Your task to perform on an android device: Clear all items from cart on bestbuy.com. Add "usb-c to usb-b" to the cart on bestbuy.com, then select checkout. Image 0: 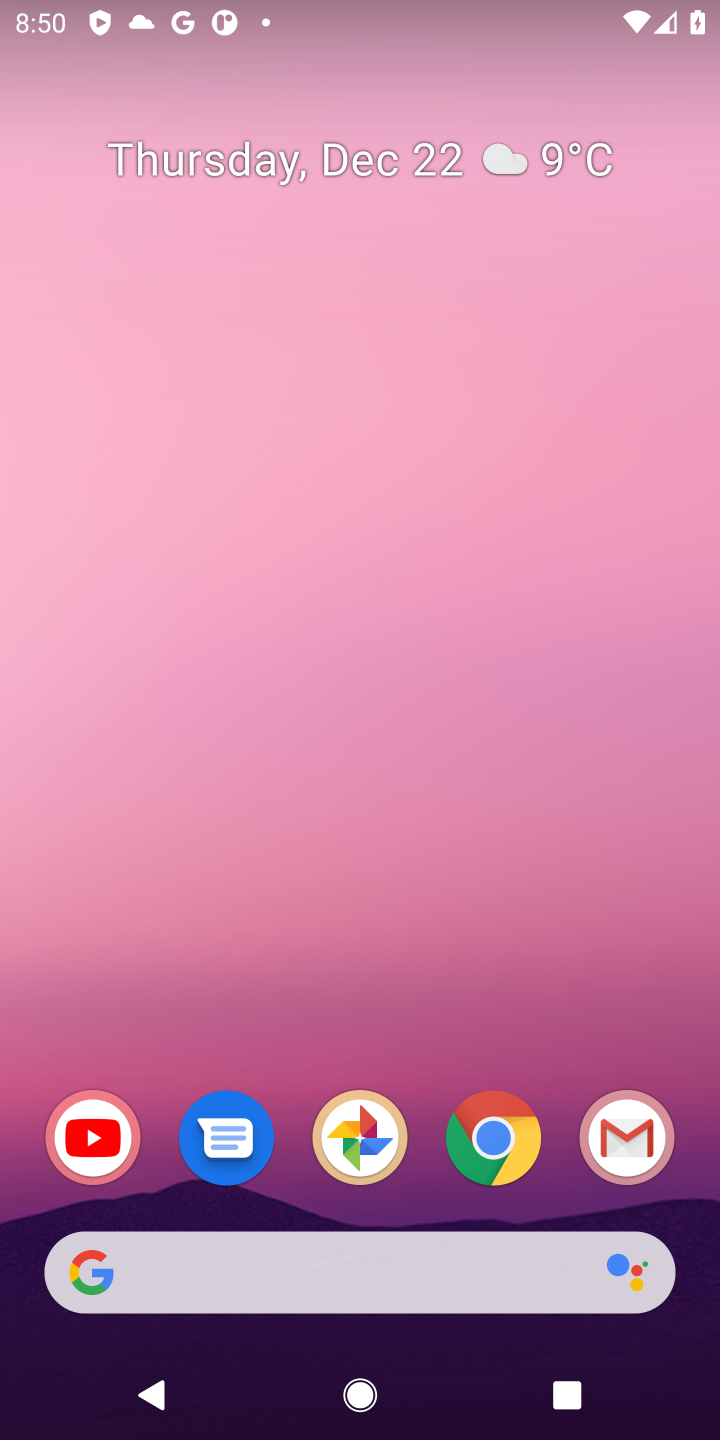
Step 0: click (504, 1163)
Your task to perform on an android device: Clear all items from cart on bestbuy.com. Add "usb-c to usb-b" to the cart on bestbuy.com, then select checkout. Image 1: 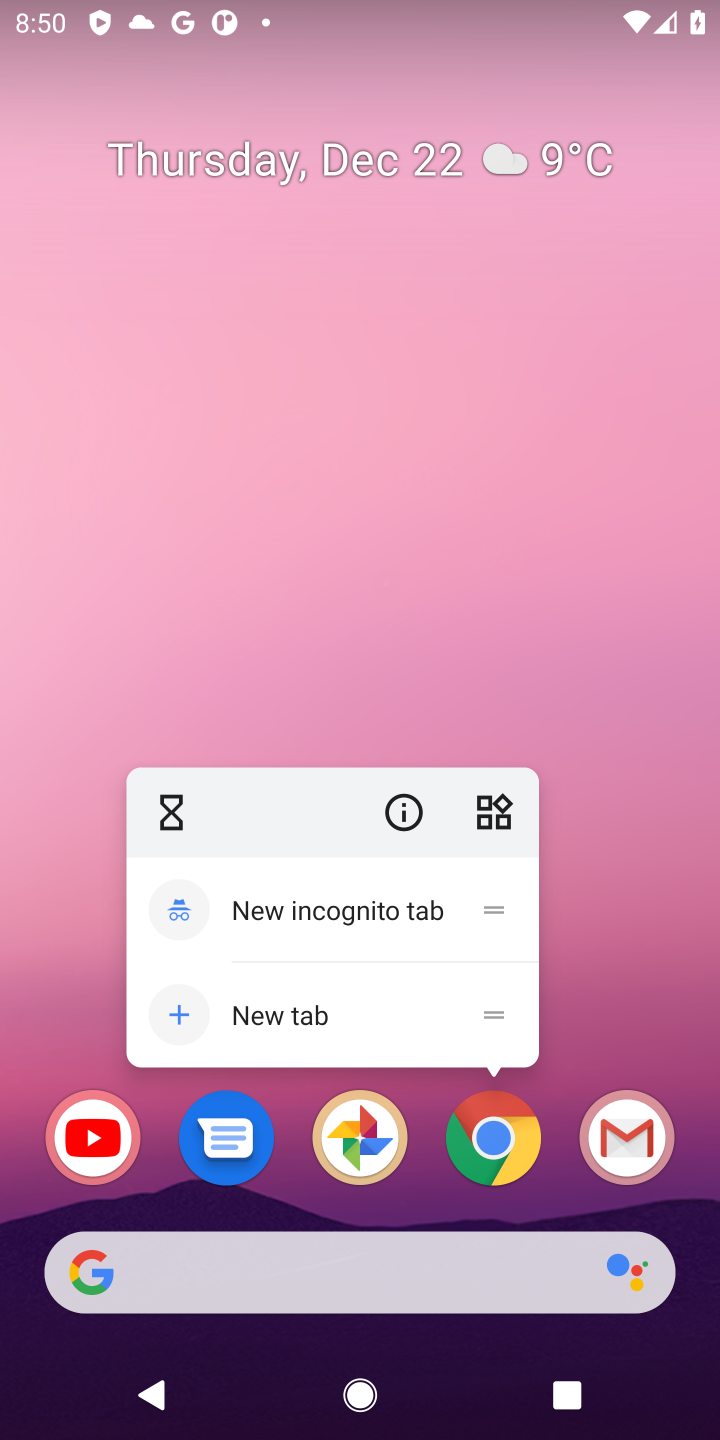
Step 1: click (476, 1148)
Your task to perform on an android device: Clear all items from cart on bestbuy.com. Add "usb-c to usb-b" to the cart on bestbuy.com, then select checkout. Image 2: 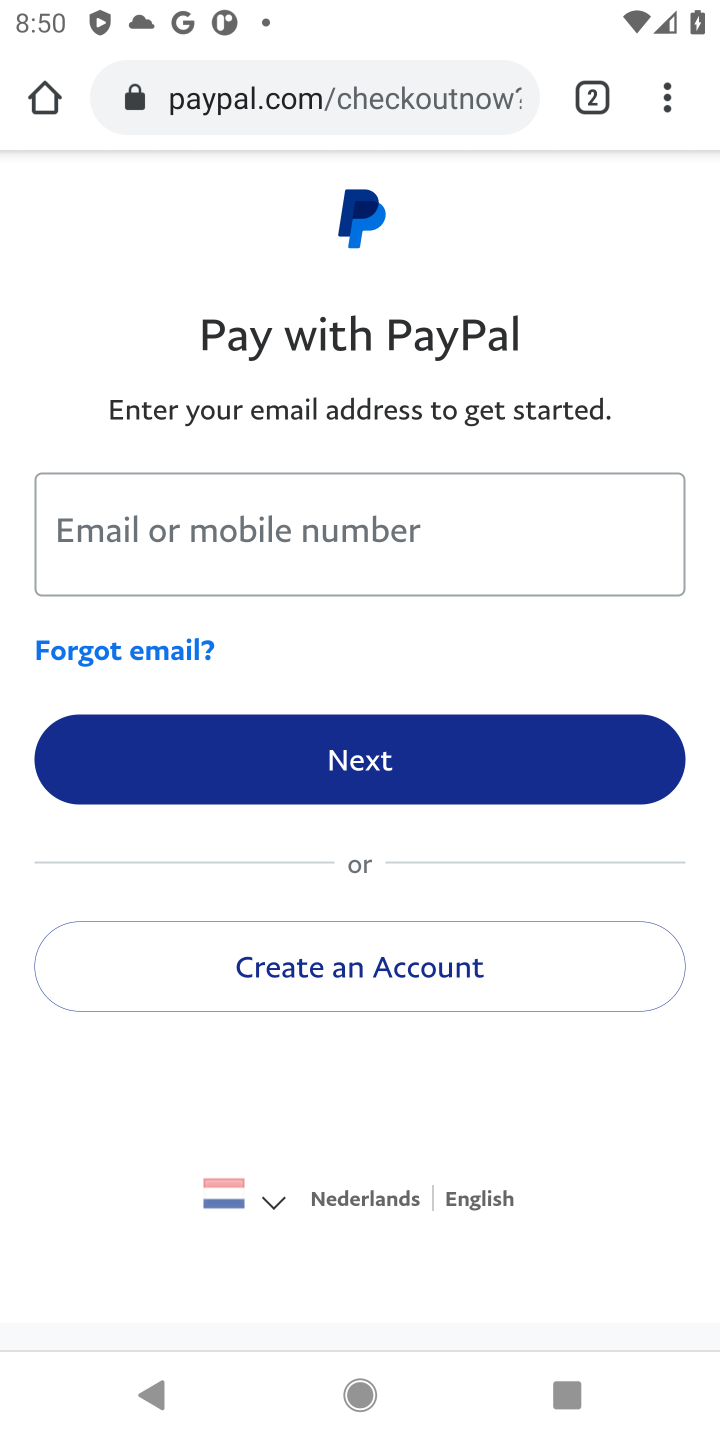
Step 2: click (315, 107)
Your task to perform on an android device: Clear all items from cart on bestbuy.com. Add "usb-c to usb-b" to the cart on bestbuy.com, then select checkout. Image 3: 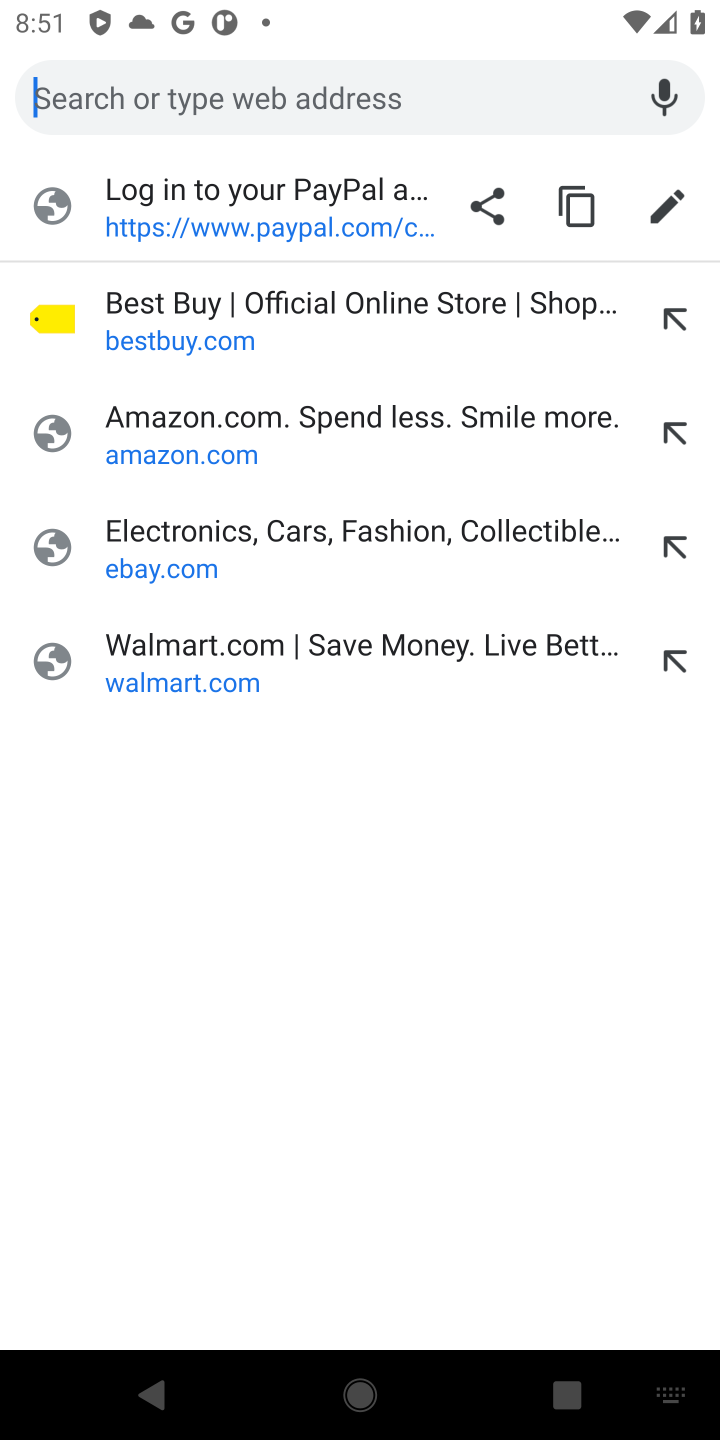
Step 3: type "bestbuy.com"
Your task to perform on an android device: Clear all items from cart on bestbuy.com. Add "usb-c to usb-b" to the cart on bestbuy.com, then select checkout. Image 4: 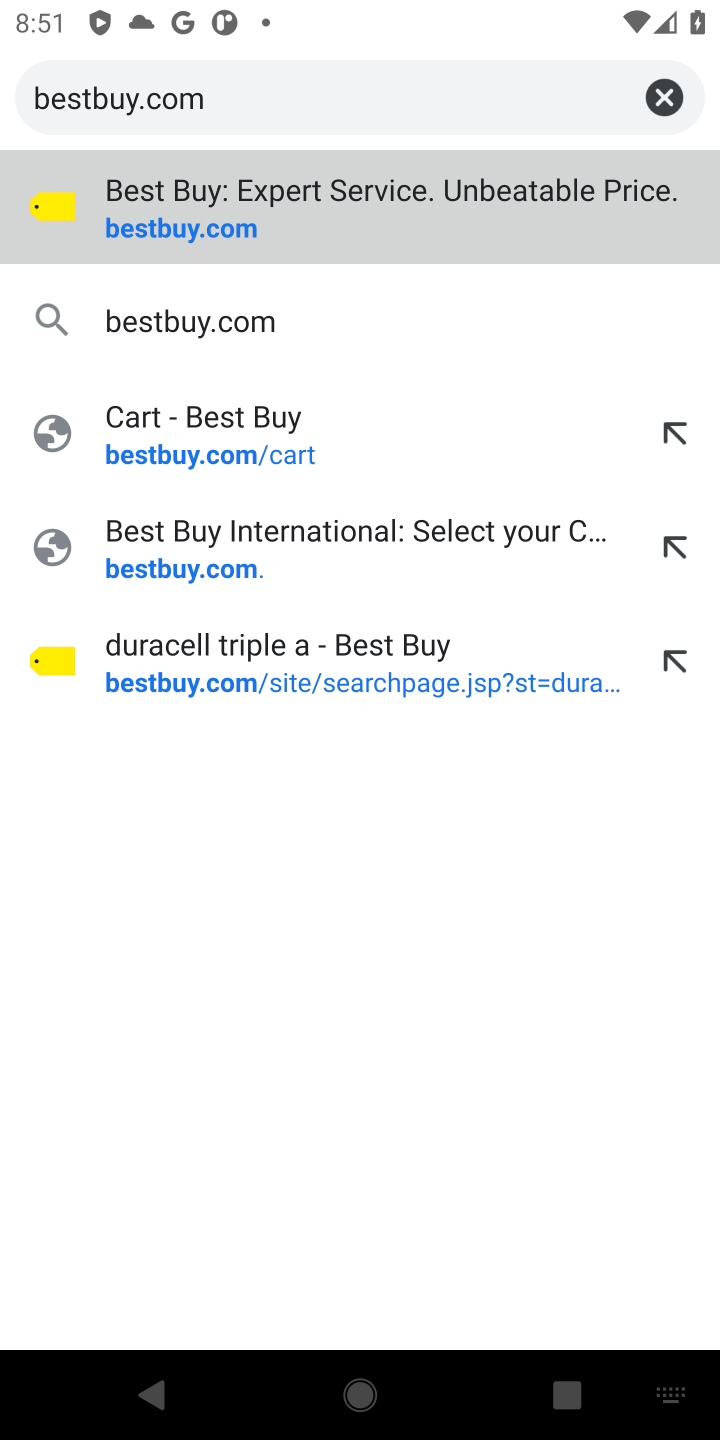
Step 4: click (306, 237)
Your task to perform on an android device: Clear all items from cart on bestbuy.com. Add "usb-c to usb-b" to the cart on bestbuy.com, then select checkout. Image 5: 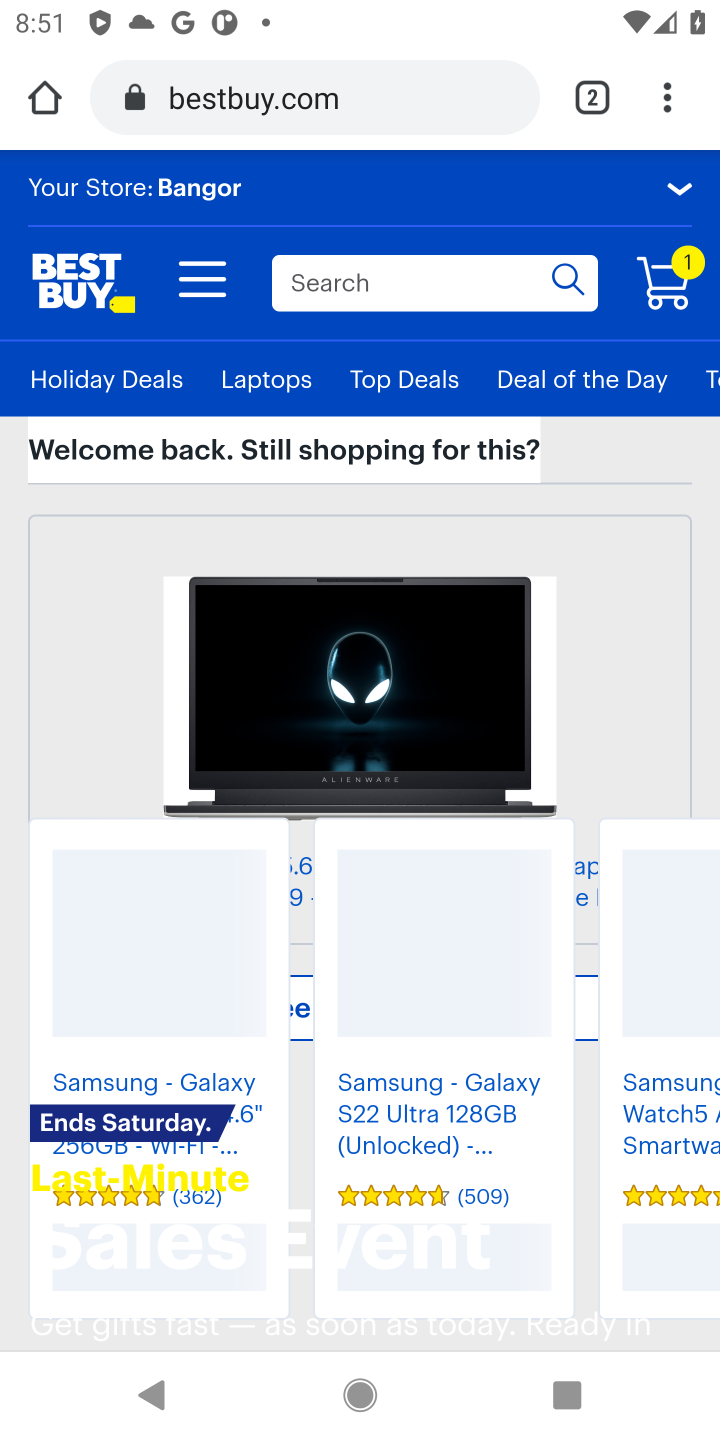
Step 5: click (675, 293)
Your task to perform on an android device: Clear all items from cart on bestbuy.com. Add "usb-c to usb-b" to the cart on bestbuy.com, then select checkout. Image 6: 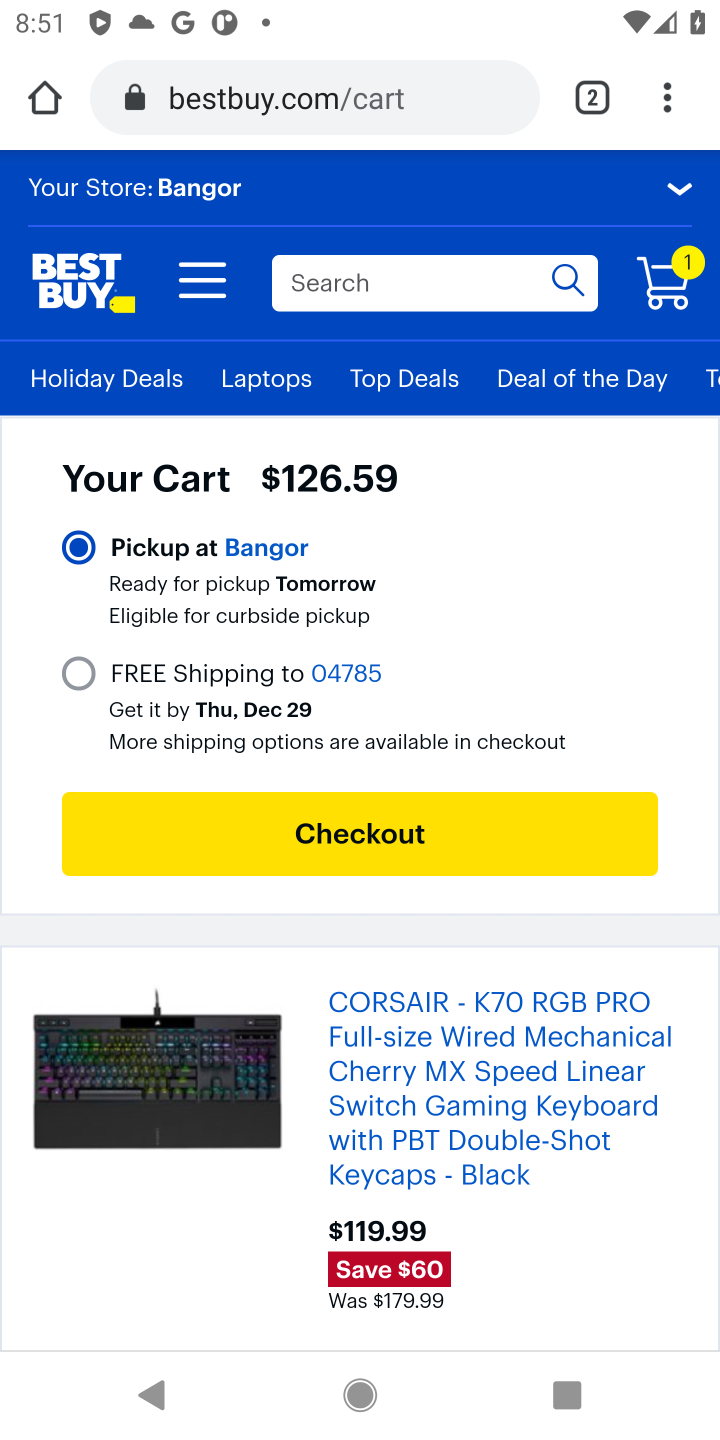
Step 6: drag from (553, 1043) to (559, 613)
Your task to perform on an android device: Clear all items from cart on bestbuy.com. Add "usb-c to usb-b" to the cart on bestbuy.com, then select checkout. Image 7: 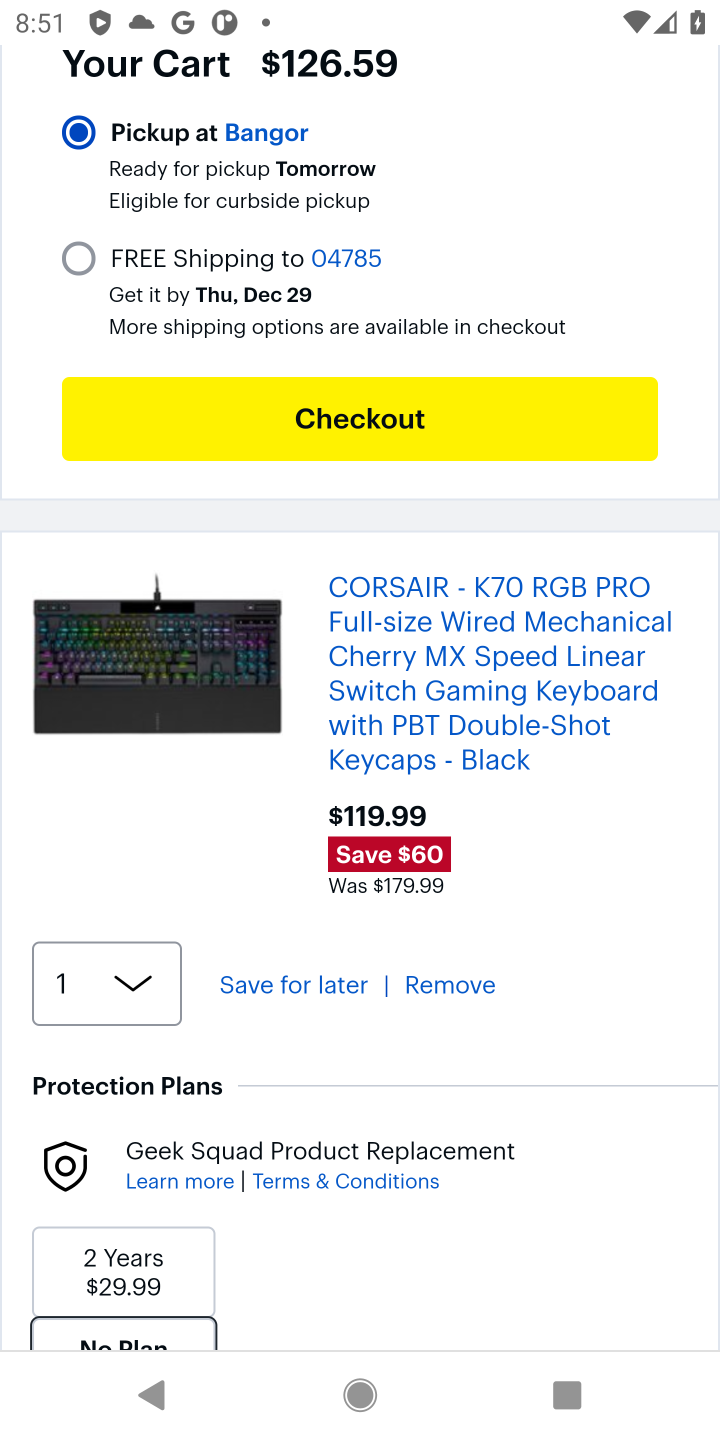
Step 7: click (441, 991)
Your task to perform on an android device: Clear all items from cart on bestbuy.com. Add "usb-c to usb-b" to the cart on bestbuy.com, then select checkout. Image 8: 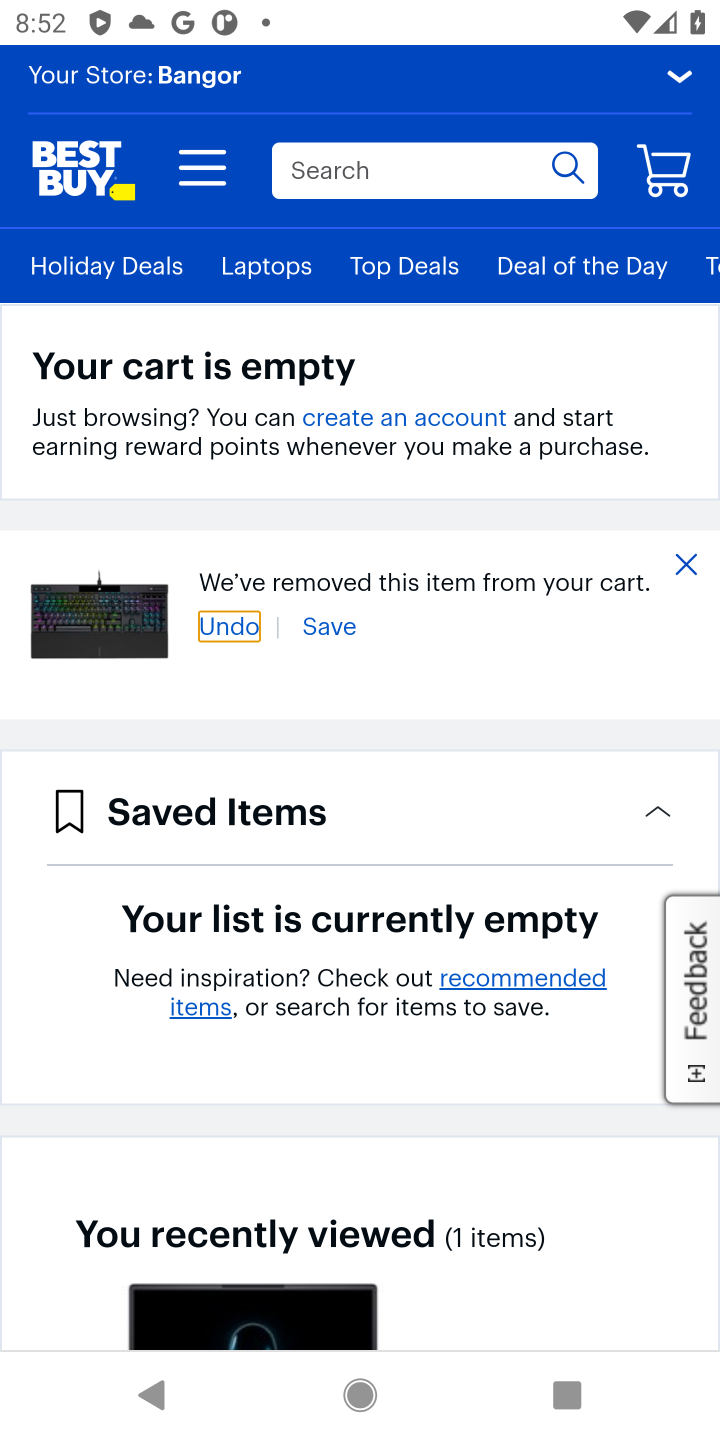
Step 8: click (384, 174)
Your task to perform on an android device: Clear all items from cart on bestbuy.com. Add "usb-c to usb-b" to the cart on bestbuy.com, then select checkout. Image 9: 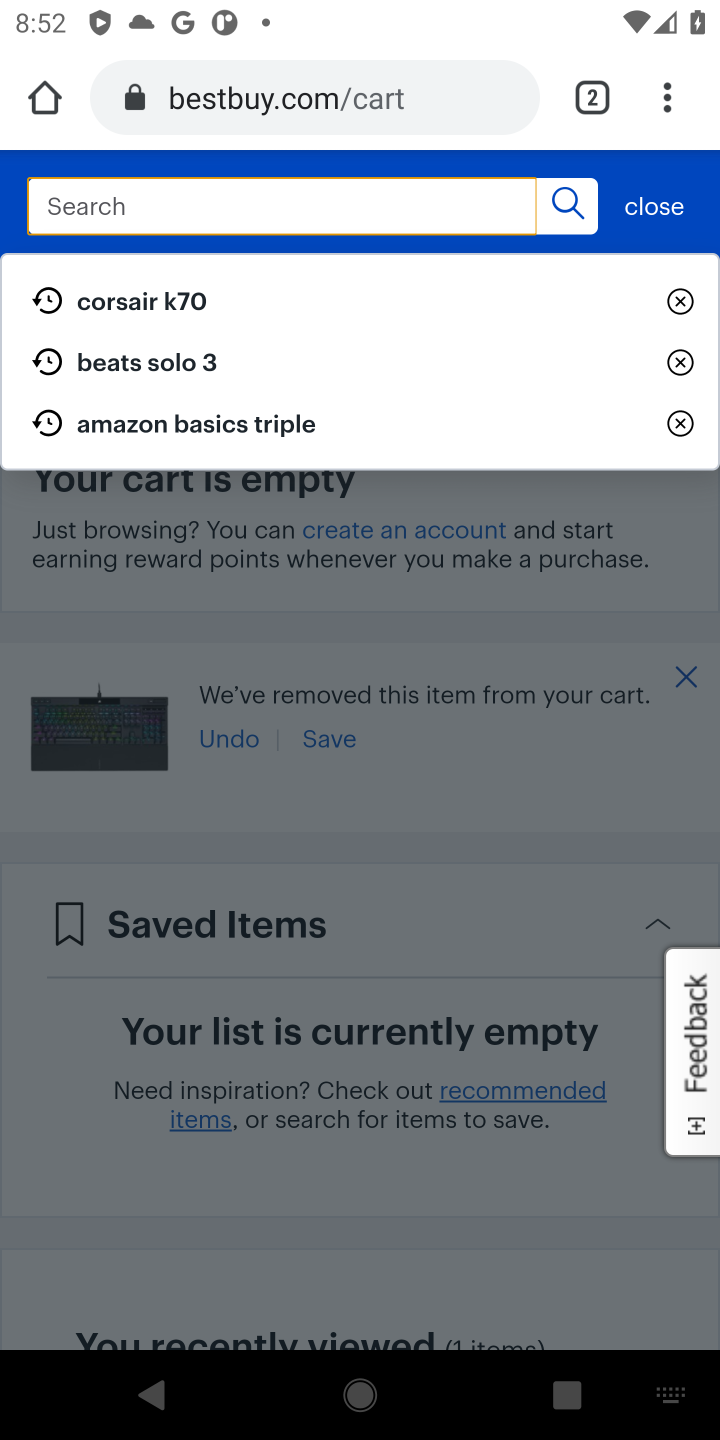
Step 9: type "usb-c to usb-b"
Your task to perform on an android device: Clear all items from cart on bestbuy.com. Add "usb-c to usb-b" to the cart on bestbuy.com, then select checkout. Image 10: 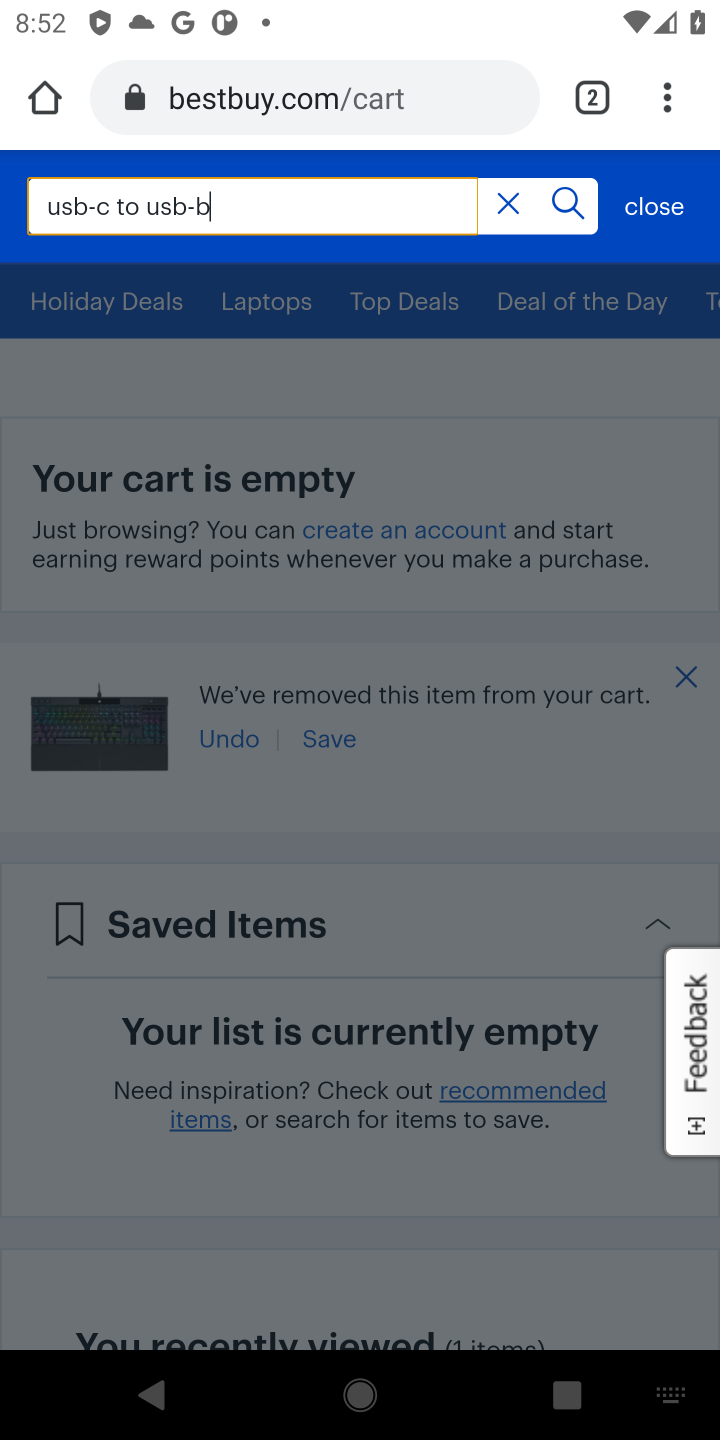
Step 10: press enter
Your task to perform on an android device: Clear all items from cart on bestbuy.com. Add "usb-c to usb-b" to the cart on bestbuy.com, then select checkout. Image 11: 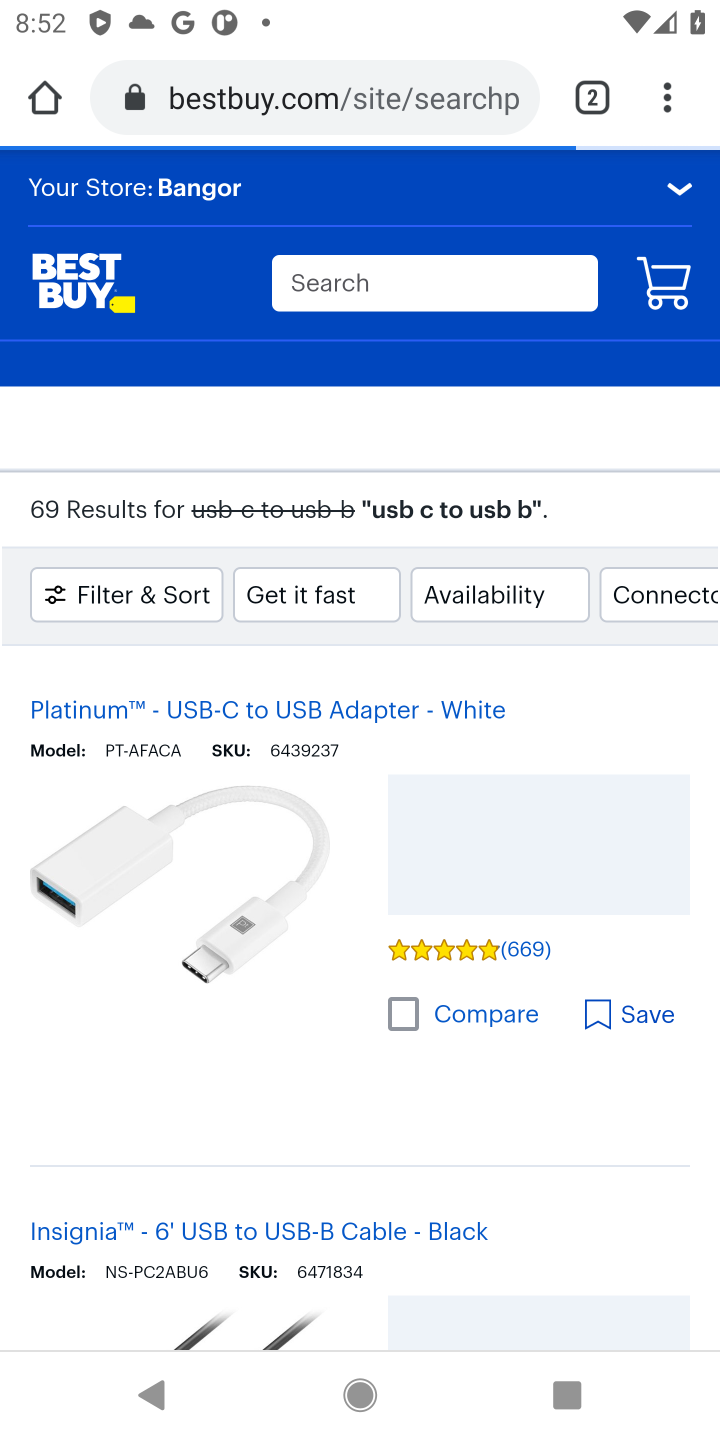
Step 11: drag from (390, 1096) to (374, 796)
Your task to perform on an android device: Clear all items from cart on bestbuy.com. Add "usb-c to usb-b" to the cart on bestbuy.com, then select checkout. Image 12: 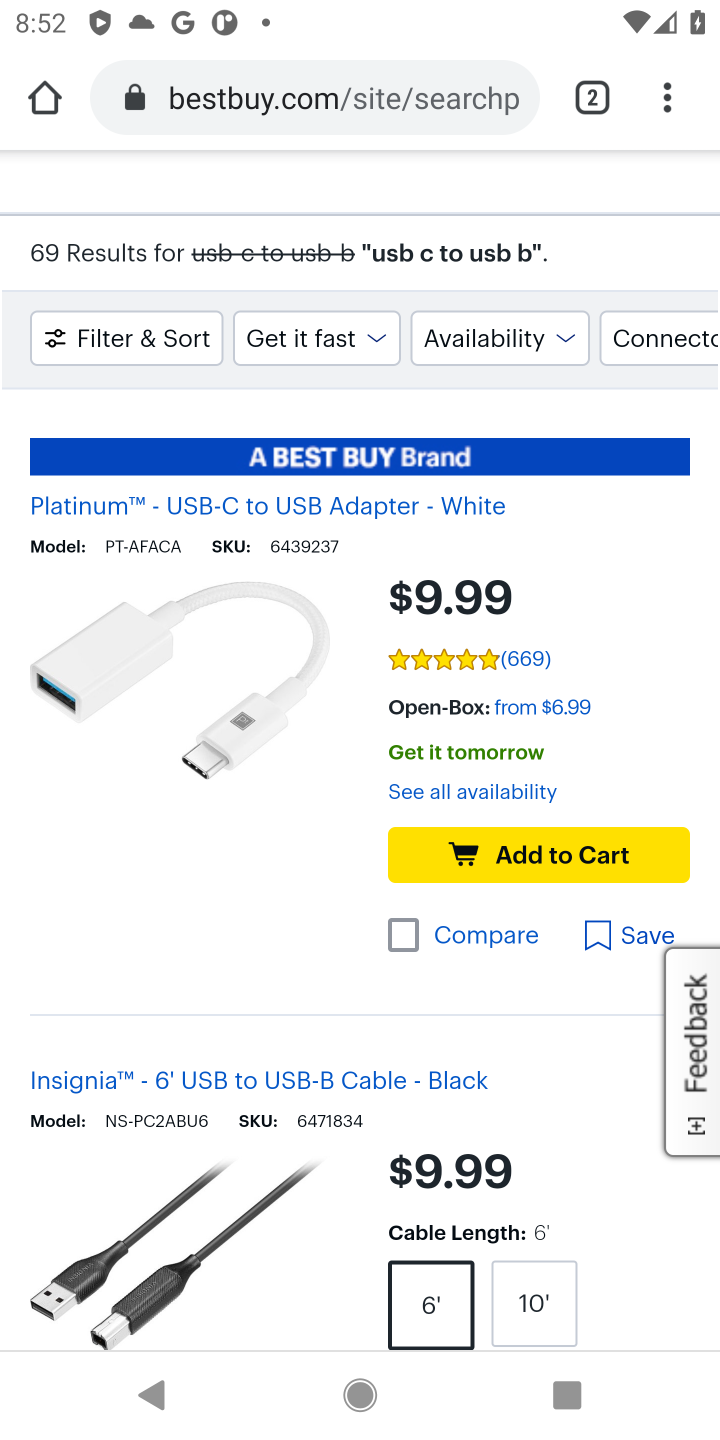
Step 12: drag from (304, 1263) to (360, 697)
Your task to perform on an android device: Clear all items from cart on bestbuy.com. Add "usb-c to usb-b" to the cart on bestbuy.com, then select checkout. Image 13: 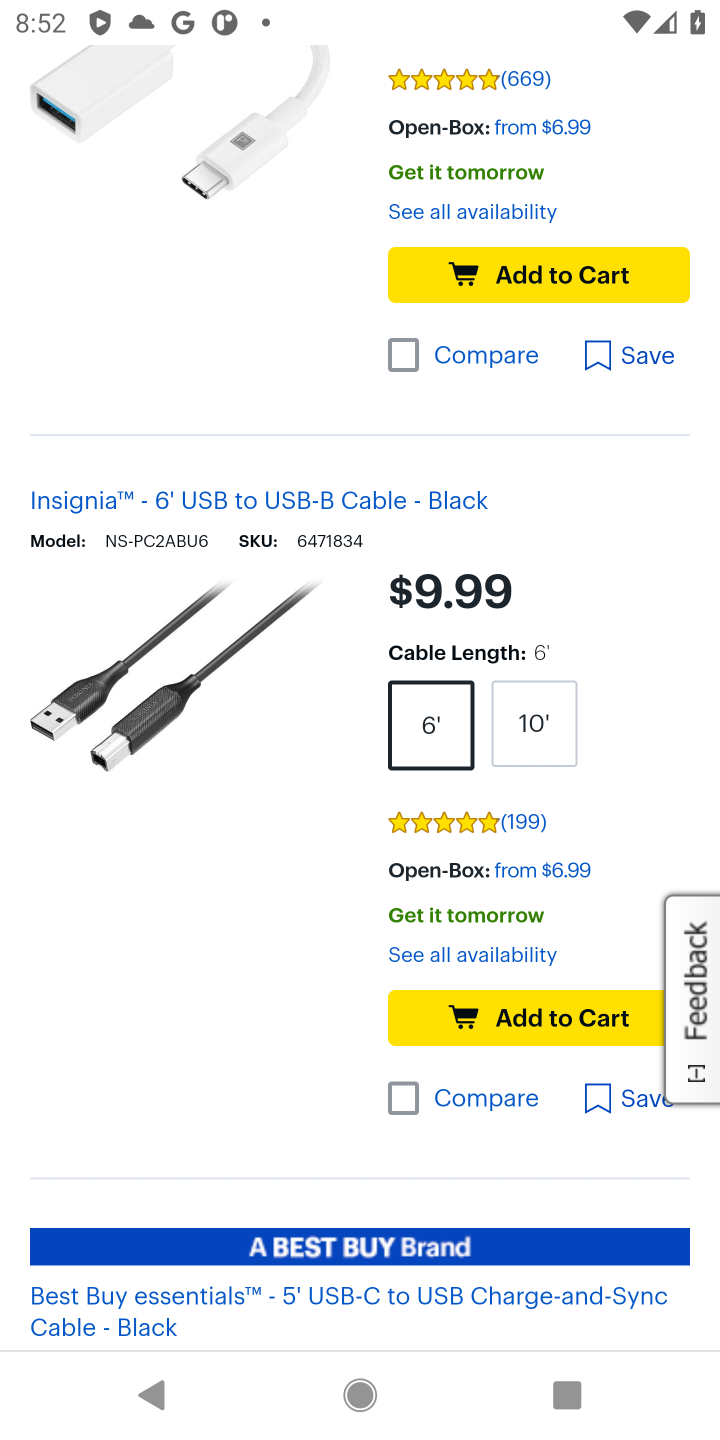
Step 13: click (502, 1016)
Your task to perform on an android device: Clear all items from cart on bestbuy.com. Add "usb-c to usb-b" to the cart on bestbuy.com, then select checkout. Image 14: 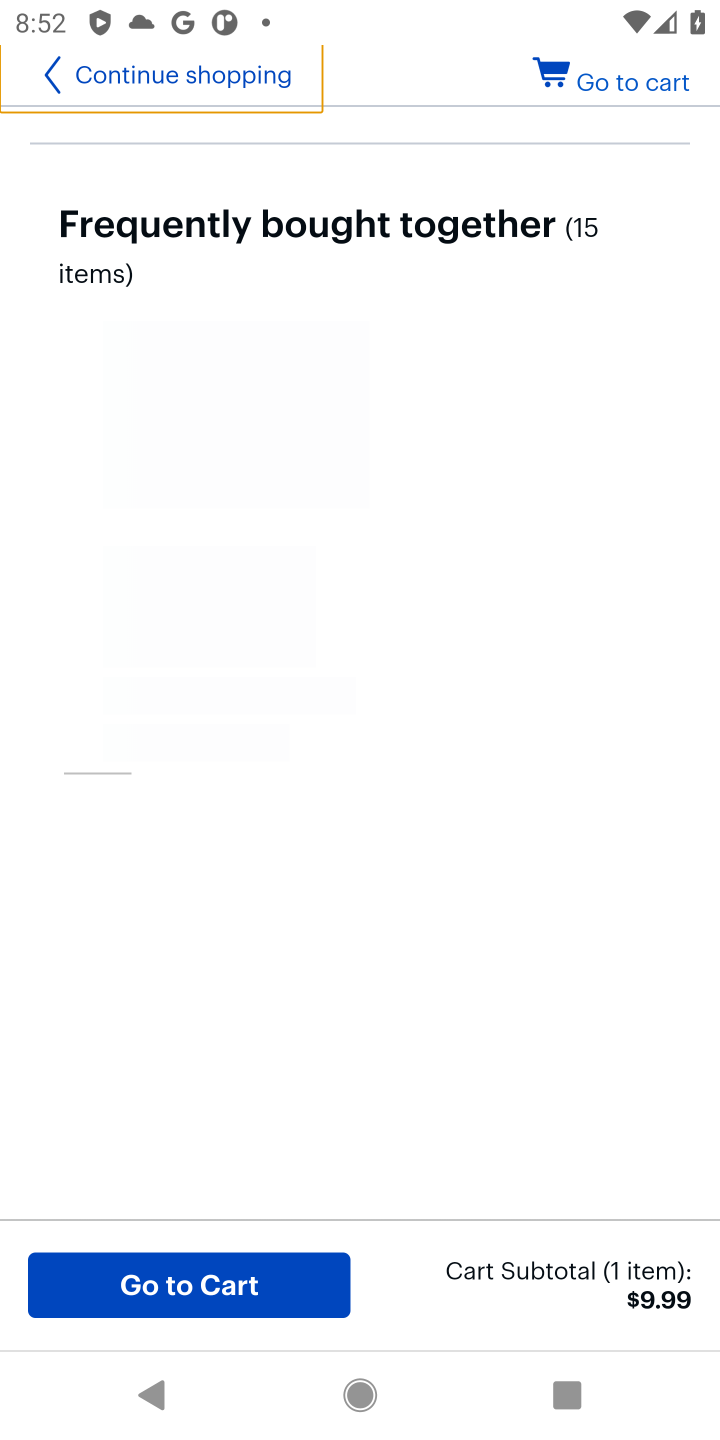
Step 14: click (166, 1290)
Your task to perform on an android device: Clear all items from cart on bestbuy.com. Add "usb-c to usb-b" to the cart on bestbuy.com, then select checkout. Image 15: 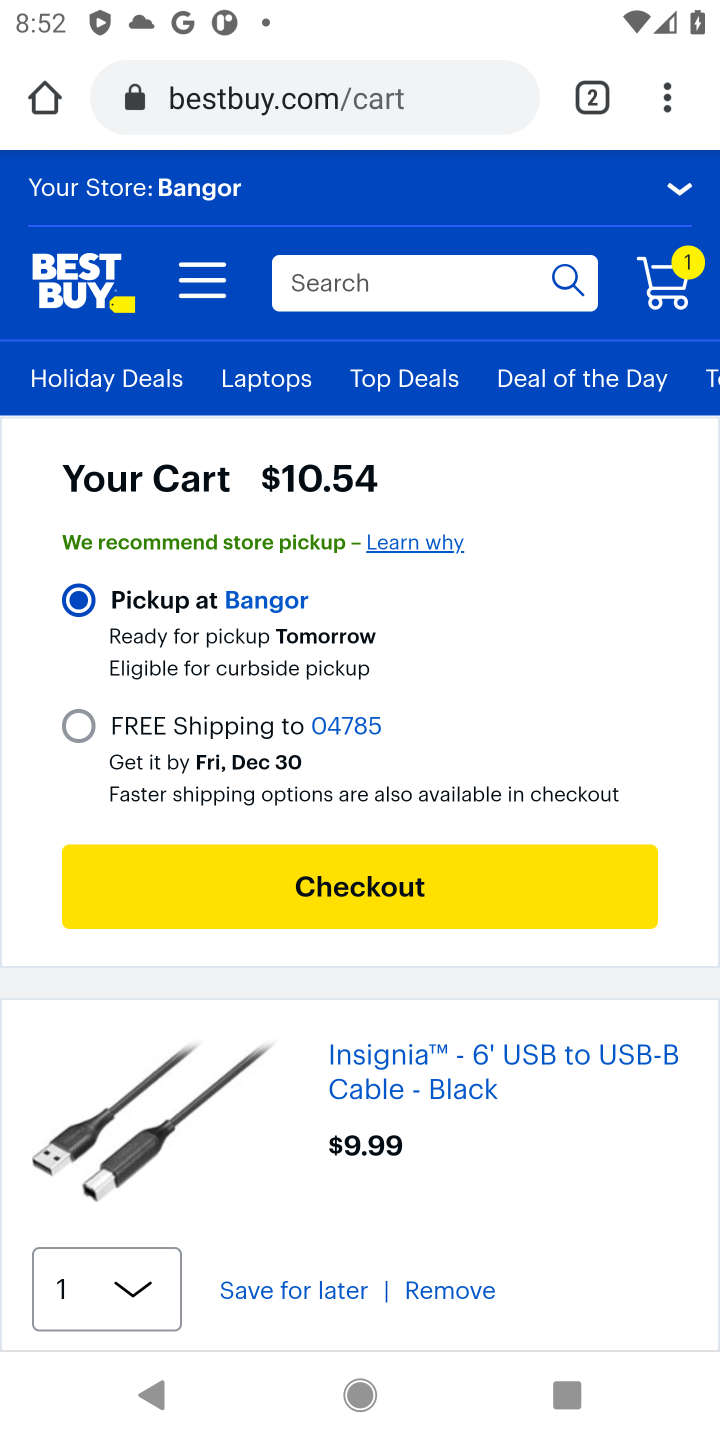
Step 15: click (345, 896)
Your task to perform on an android device: Clear all items from cart on bestbuy.com. Add "usb-c to usb-b" to the cart on bestbuy.com, then select checkout. Image 16: 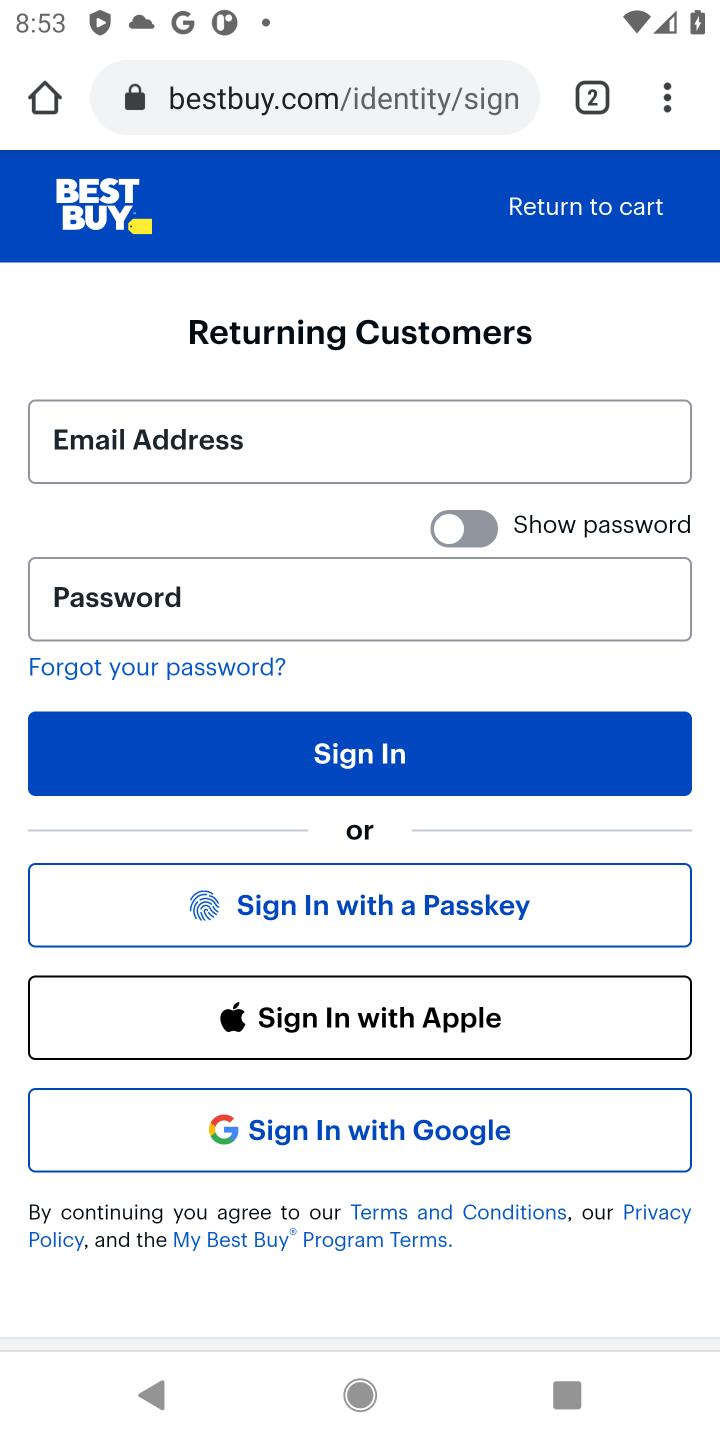
Step 16: task complete